Your task to perform on an android device: check battery use Image 0: 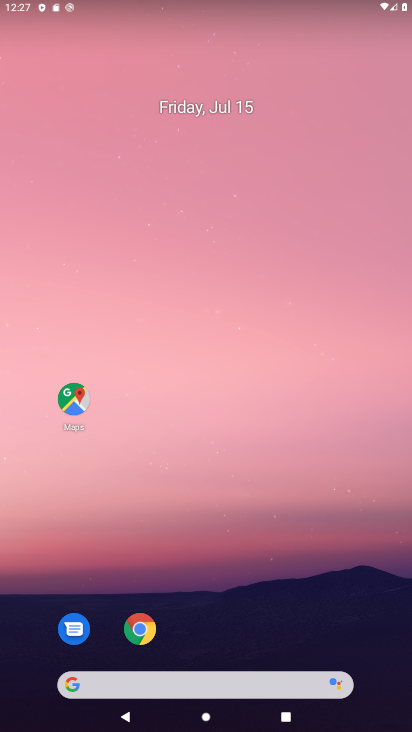
Step 0: drag from (201, 635) to (217, 217)
Your task to perform on an android device: check battery use Image 1: 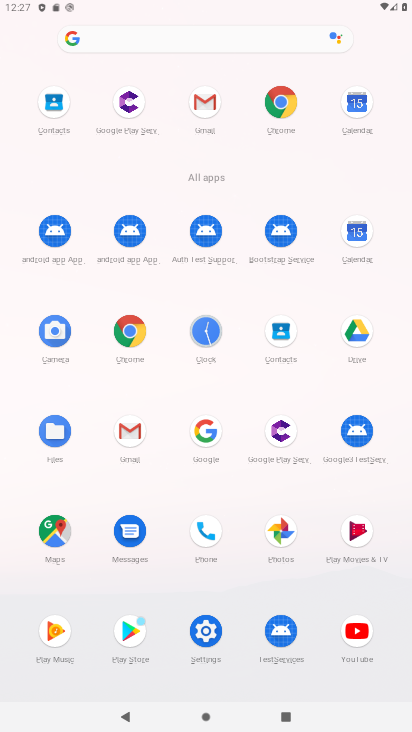
Step 1: click (213, 640)
Your task to perform on an android device: check battery use Image 2: 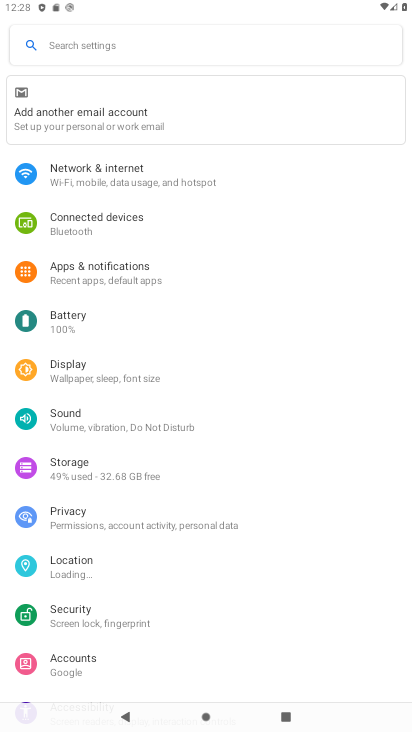
Step 2: click (80, 324)
Your task to perform on an android device: check battery use Image 3: 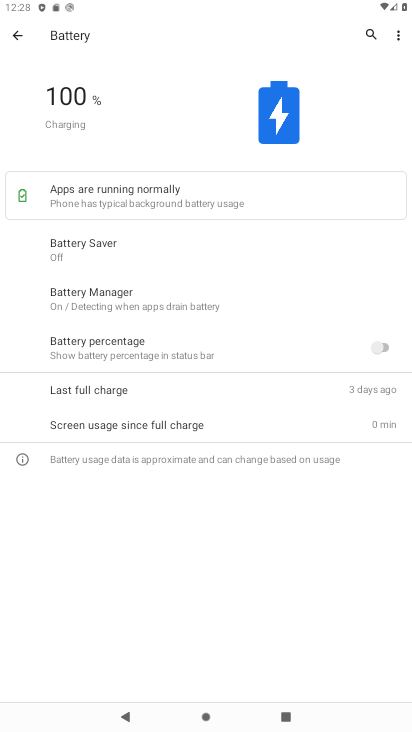
Step 3: click (397, 29)
Your task to perform on an android device: check battery use Image 4: 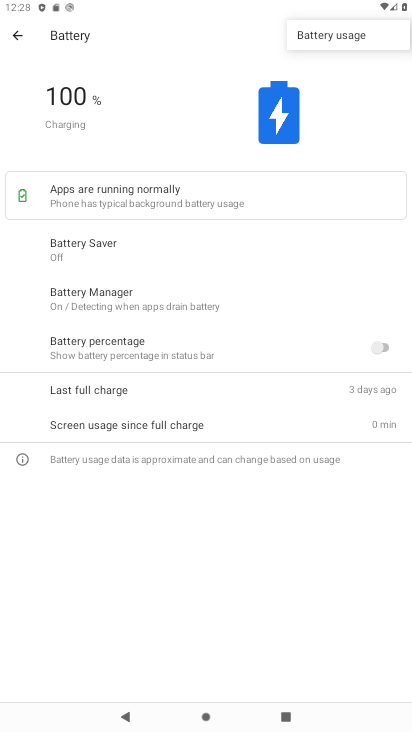
Step 4: click (386, 33)
Your task to perform on an android device: check battery use Image 5: 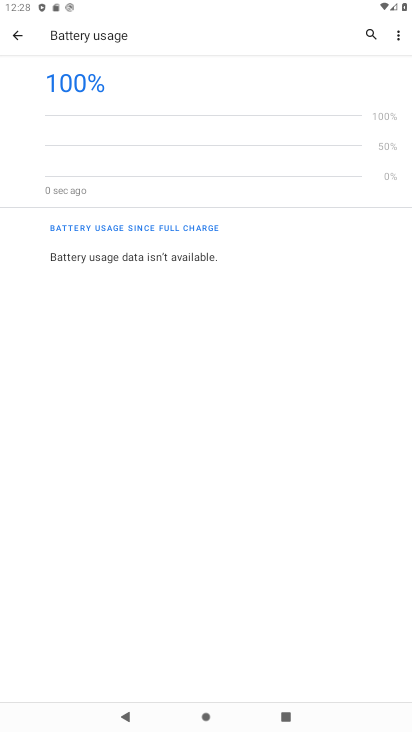
Step 5: task complete